Your task to perform on an android device: What's on my calendar today? Image 0: 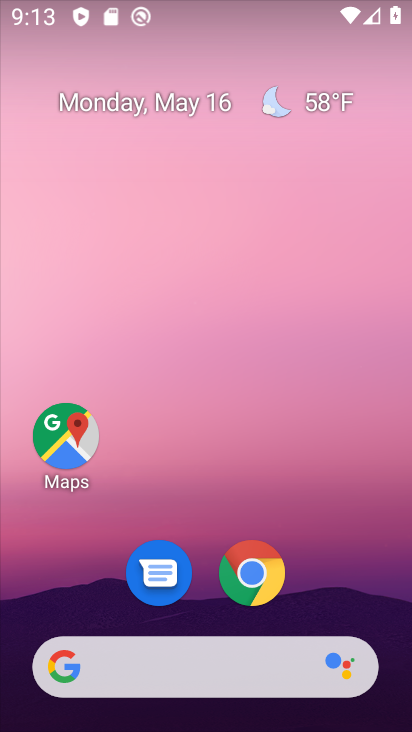
Step 0: click (408, 548)
Your task to perform on an android device: What's on my calendar today? Image 1: 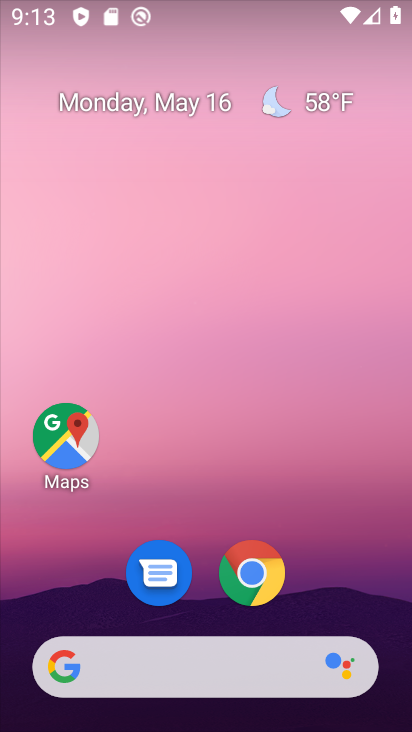
Step 1: drag from (369, 717) to (231, 342)
Your task to perform on an android device: What's on my calendar today? Image 2: 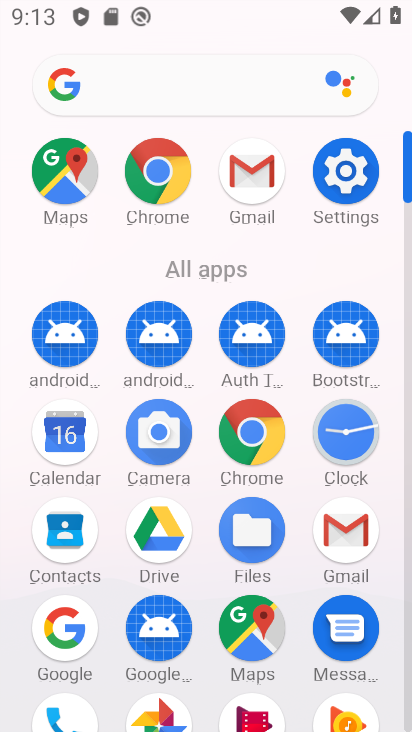
Step 2: click (57, 428)
Your task to perform on an android device: What's on my calendar today? Image 3: 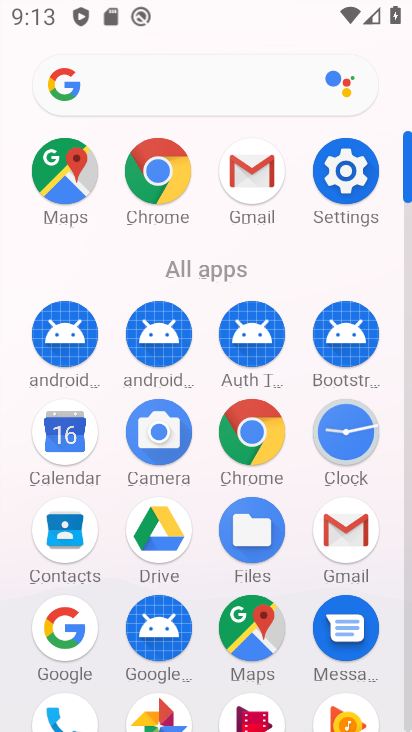
Step 3: click (57, 427)
Your task to perform on an android device: What's on my calendar today? Image 4: 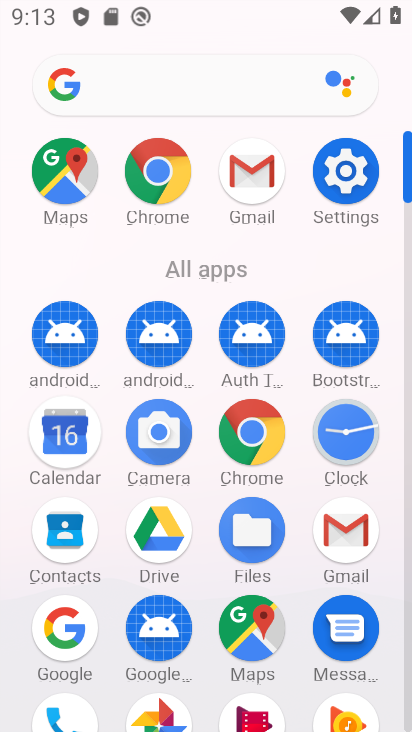
Step 4: click (56, 426)
Your task to perform on an android device: What's on my calendar today? Image 5: 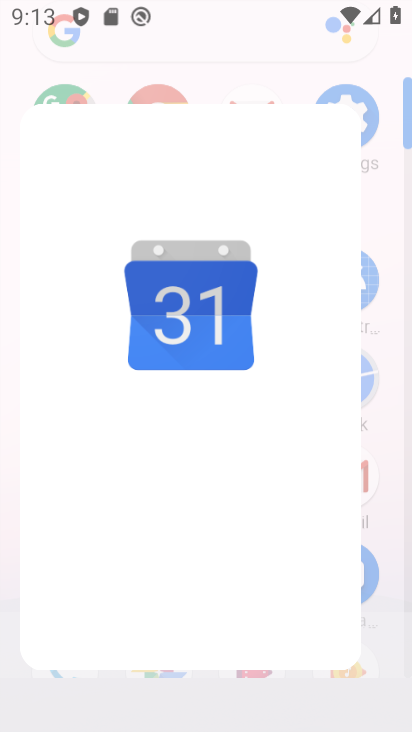
Step 5: click (57, 425)
Your task to perform on an android device: What's on my calendar today? Image 6: 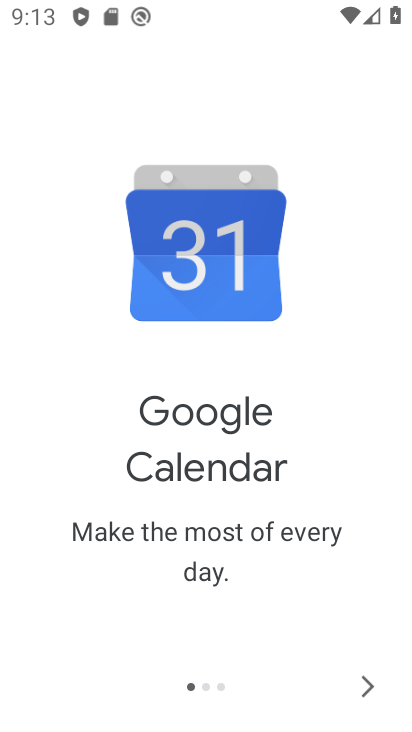
Step 6: click (356, 677)
Your task to perform on an android device: What's on my calendar today? Image 7: 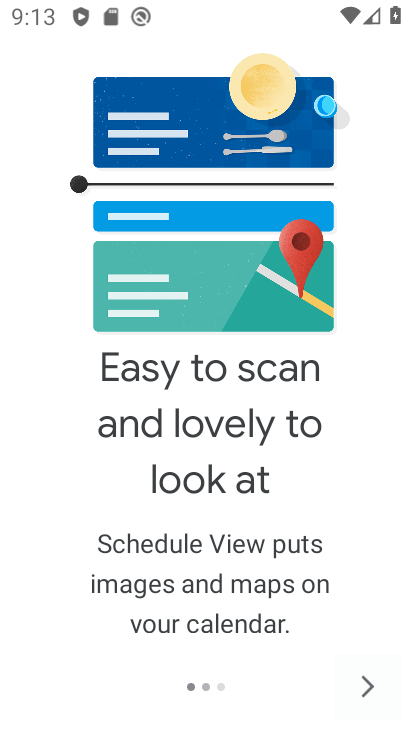
Step 7: click (357, 676)
Your task to perform on an android device: What's on my calendar today? Image 8: 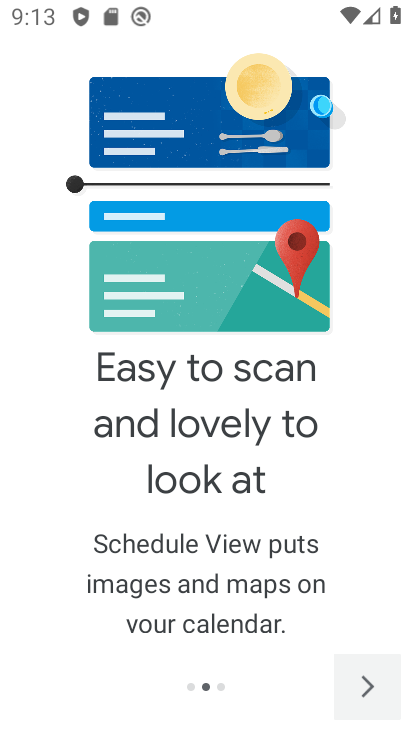
Step 8: click (364, 677)
Your task to perform on an android device: What's on my calendar today? Image 9: 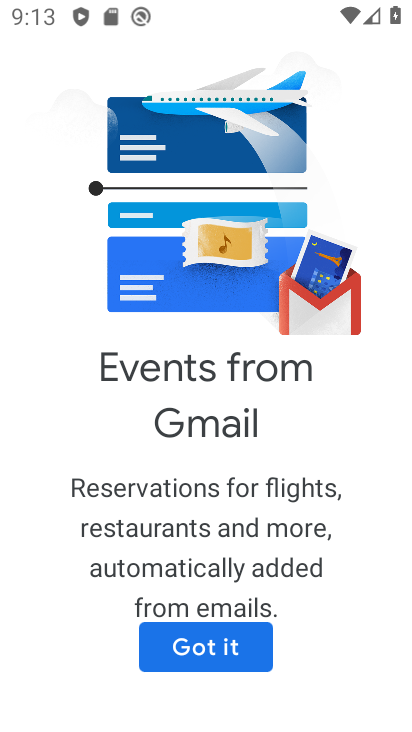
Step 9: click (364, 677)
Your task to perform on an android device: What's on my calendar today? Image 10: 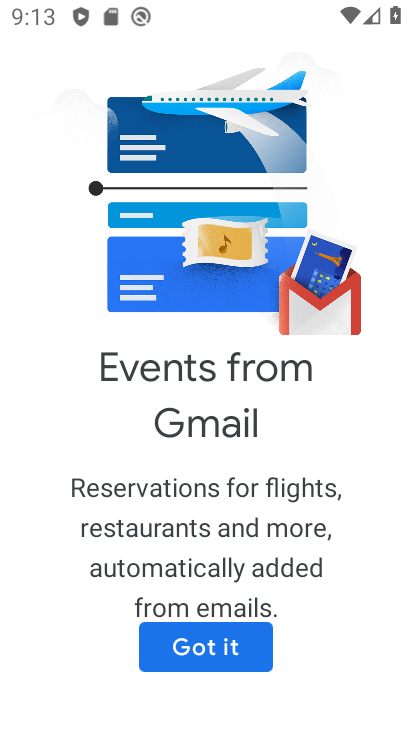
Step 10: click (214, 635)
Your task to perform on an android device: What's on my calendar today? Image 11: 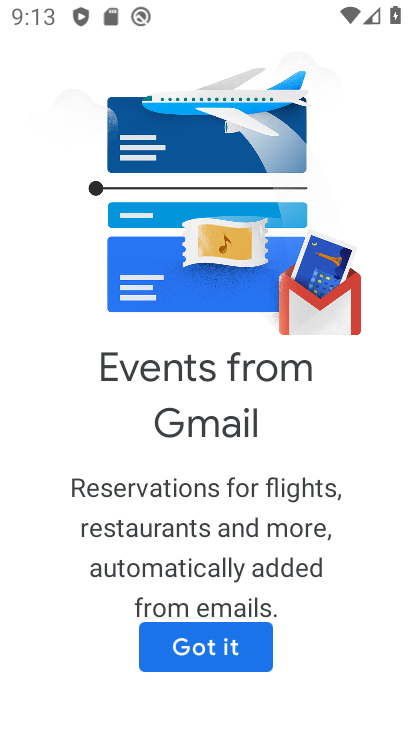
Step 11: click (218, 632)
Your task to perform on an android device: What's on my calendar today? Image 12: 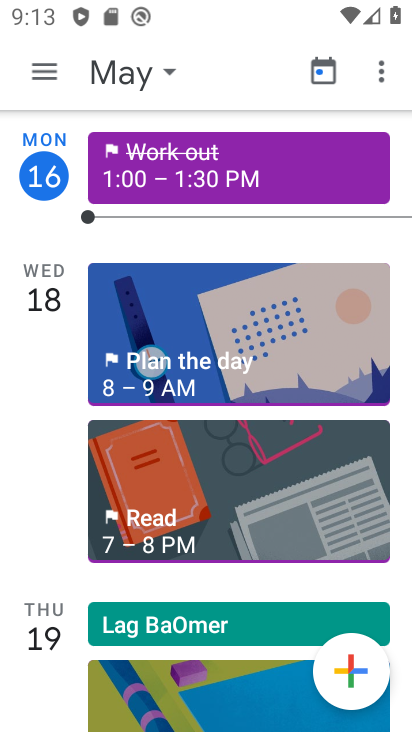
Step 12: click (166, 71)
Your task to perform on an android device: What's on my calendar today? Image 13: 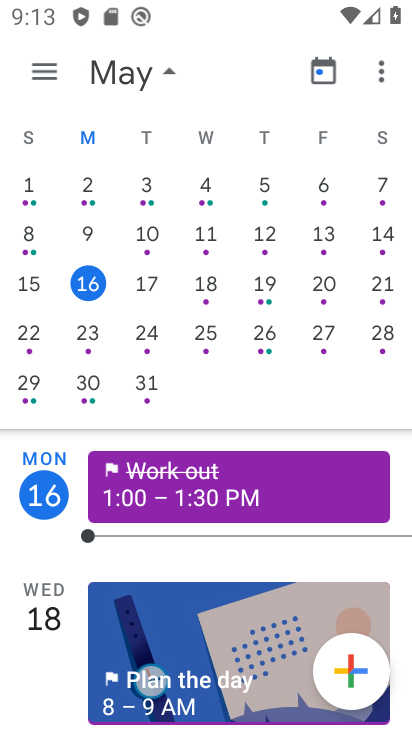
Step 13: drag from (279, 276) to (40, 305)
Your task to perform on an android device: What's on my calendar today? Image 14: 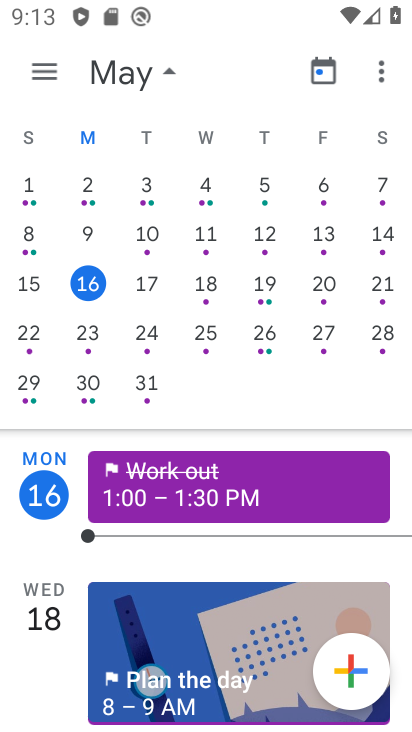
Step 14: drag from (238, 279) to (4, 267)
Your task to perform on an android device: What's on my calendar today? Image 15: 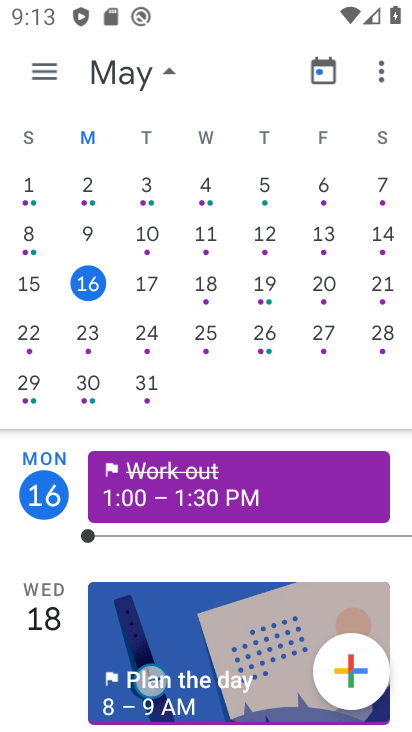
Step 15: drag from (186, 276) to (3, 398)
Your task to perform on an android device: What's on my calendar today? Image 16: 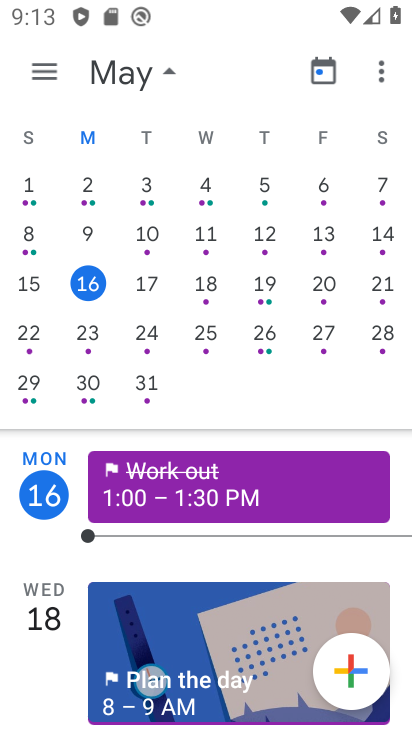
Step 16: click (148, 284)
Your task to perform on an android device: What's on my calendar today? Image 17: 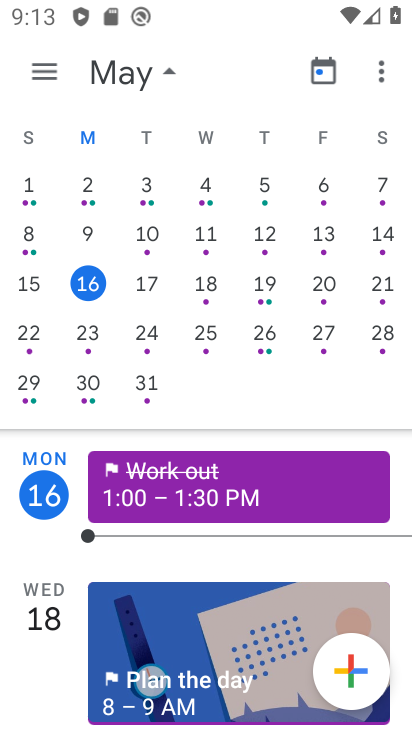
Step 17: click (149, 284)
Your task to perform on an android device: What's on my calendar today? Image 18: 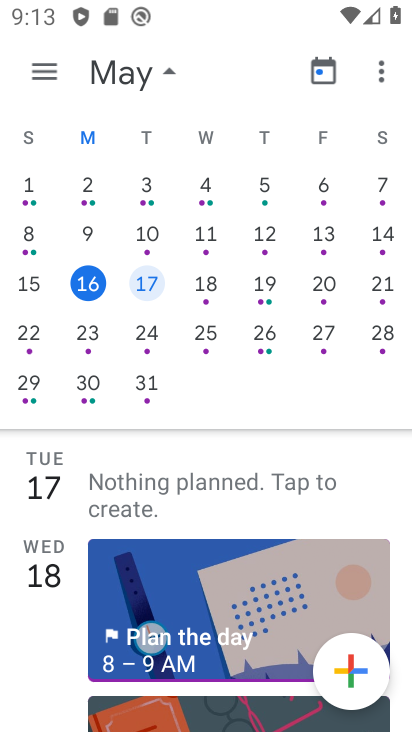
Step 18: click (149, 284)
Your task to perform on an android device: What's on my calendar today? Image 19: 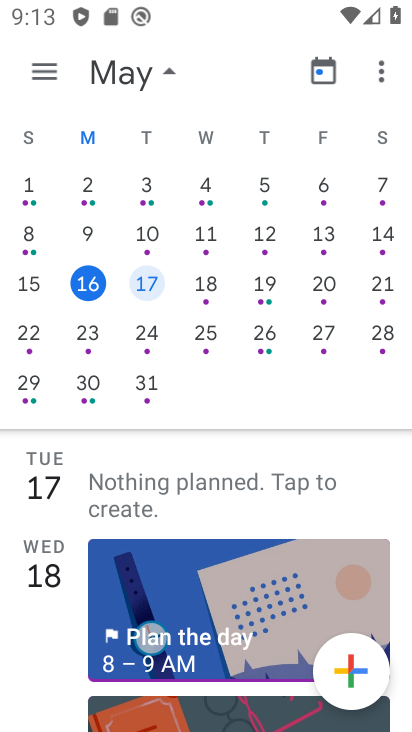
Step 19: click (149, 284)
Your task to perform on an android device: What's on my calendar today? Image 20: 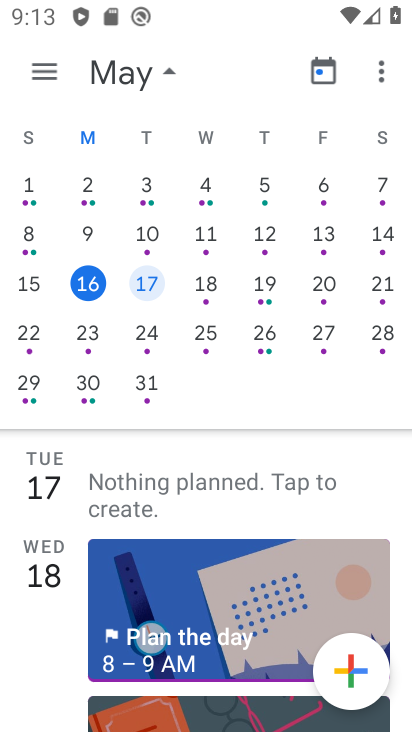
Step 20: click (150, 283)
Your task to perform on an android device: What's on my calendar today? Image 21: 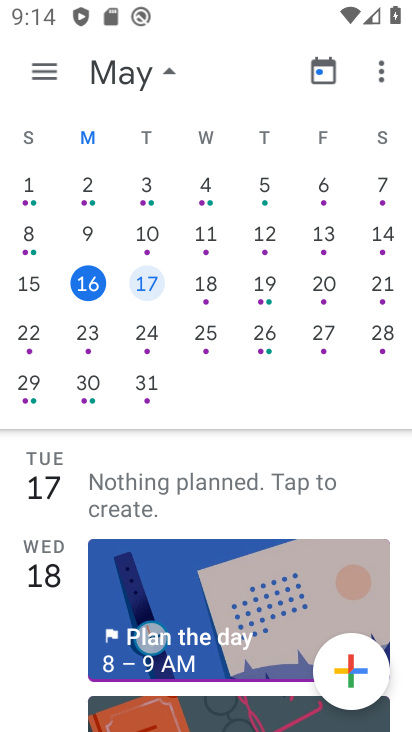
Step 21: task complete